Your task to perform on an android device: Show me recent news Image 0: 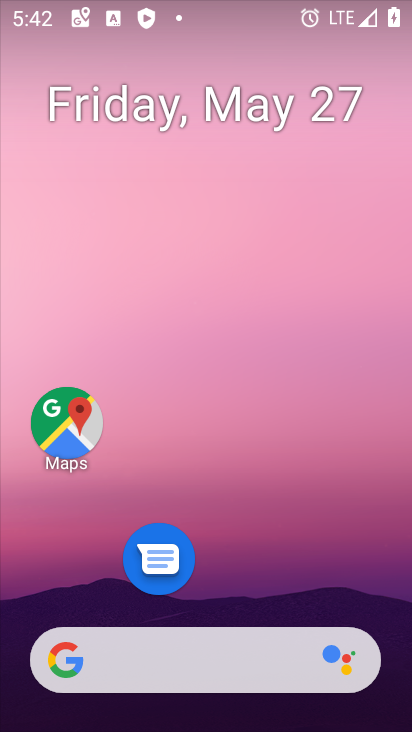
Step 0: drag from (321, 646) to (379, 18)
Your task to perform on an android device: Show me recent news Image 1: 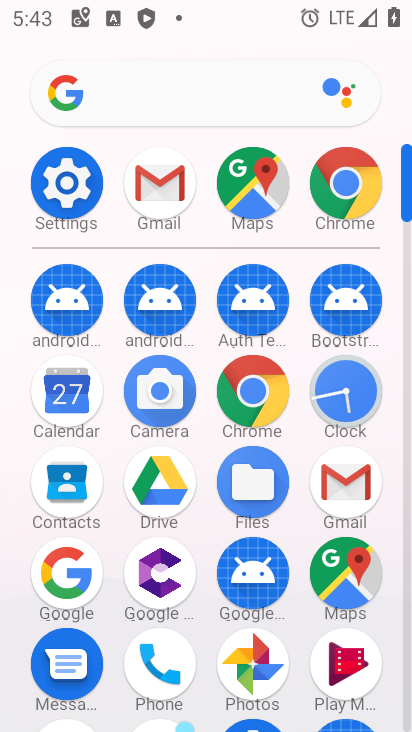
Step 1: click (250, 396)
Your task to perform on an android device: Show me recent news Image 2: 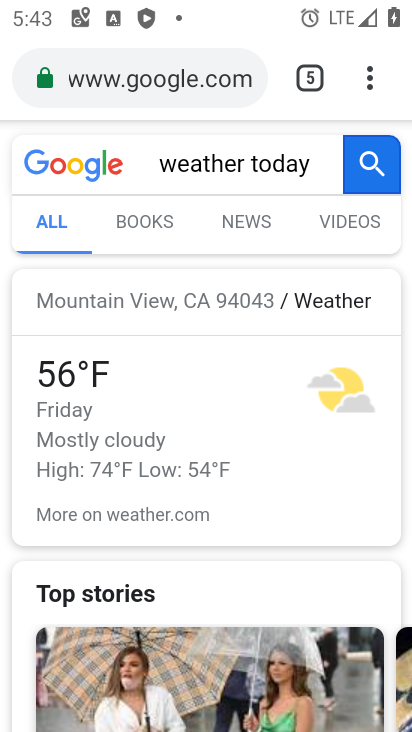
Step 2: click (237, 83)
Your task to perform on an android device: Show me recent news Image 3: 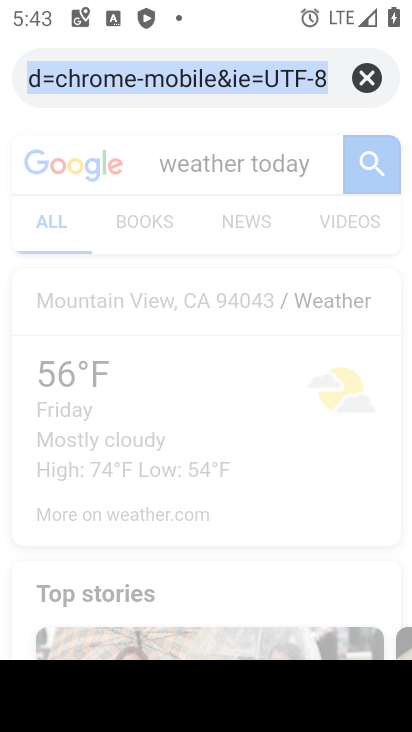
Step 3: type "recent news"
Your task to perform on an android device: Show me recent news Image 4: 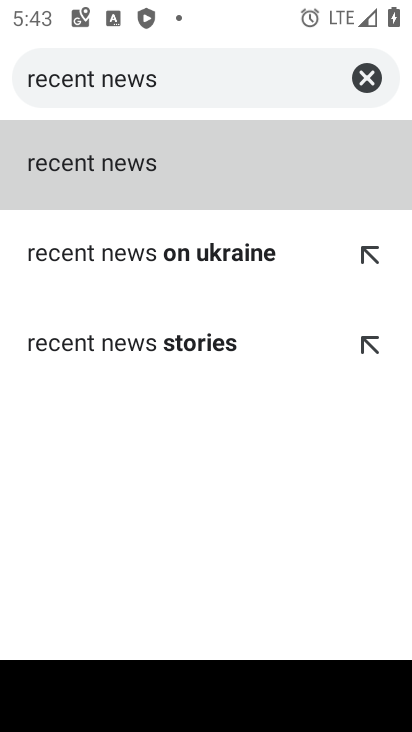
Step 4: click (216, 175)
Your task to perform on an android device: Show me recent news Image 5: 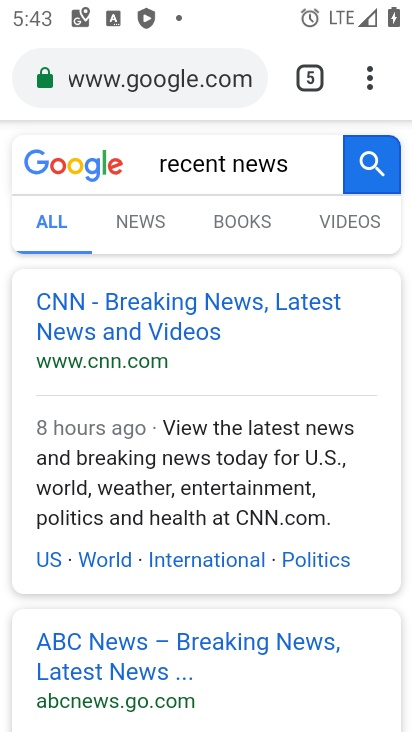
Step 5: task complete